Your task to perform on an android device: Open the calendar and show me this week's events? Image 0: 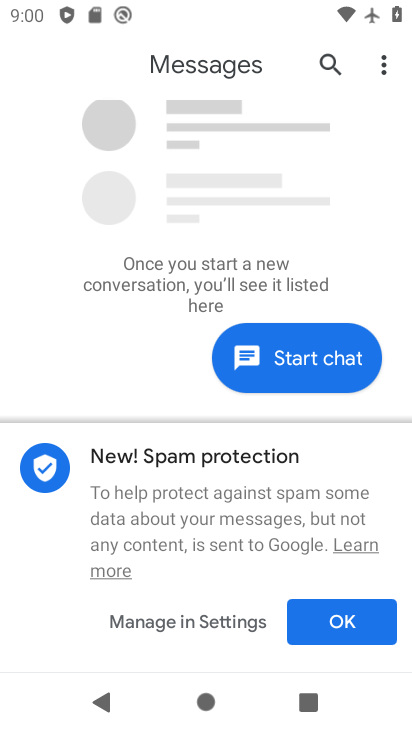
Step 0: press home button
Your task to perform on an android device: Open the calendar and show me this week's events? Image 1: 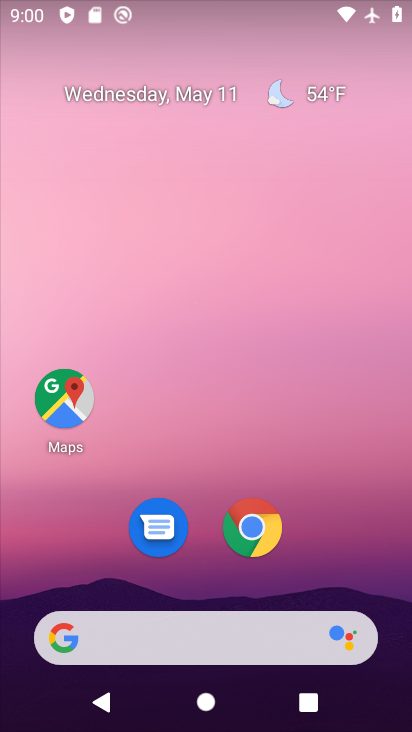
Step 1: drag from (321, 568) to (314, 191)
Your task to perform on an android device: Open the calendar and show me this week's events? Image 2: 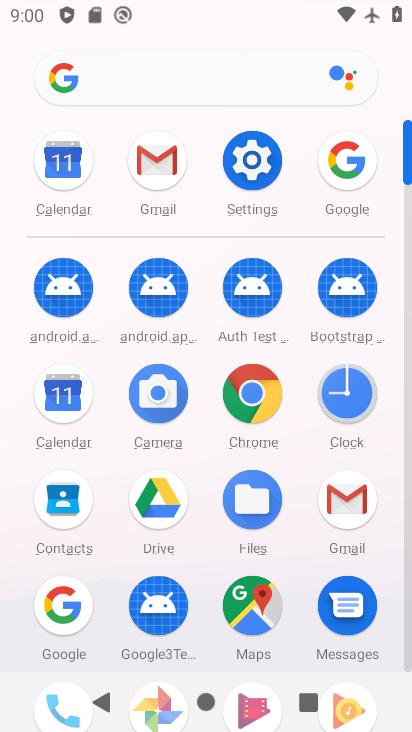
Step 2: click (72, 405)
Your task to perform on an android device: Open the calendar and show me this week's events? Image 3: 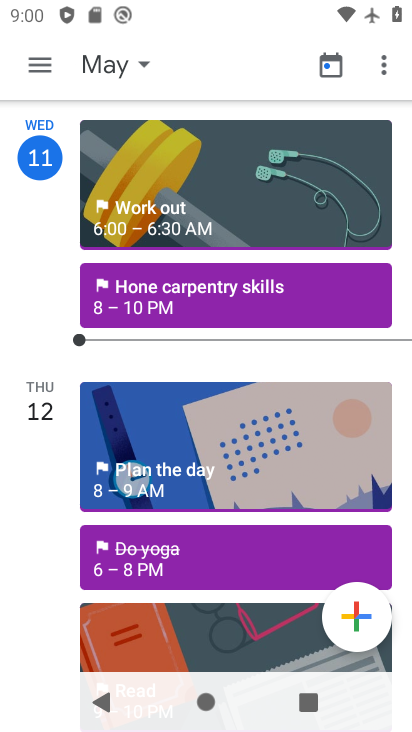
Step 3: click (119, 61)
Your task to perform on an android device: Open the calendar and show me this week's events? Image 4: 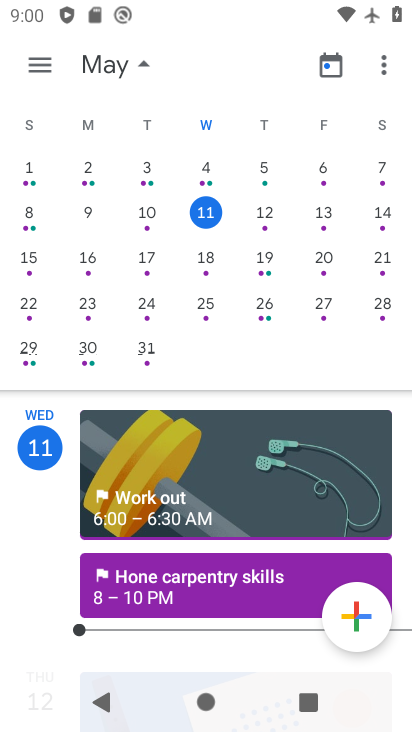
Step 4: click (271, 220)
Your task to perform on an android device: Open the calendar and show me this week's events? Image 5: 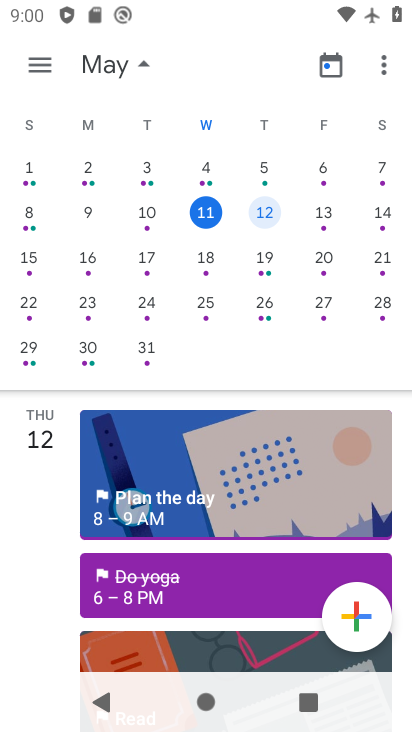
Step 5: click (323, 224)
Your task to perform on an android device: Open the calendar and show me this week's events? Image 6: 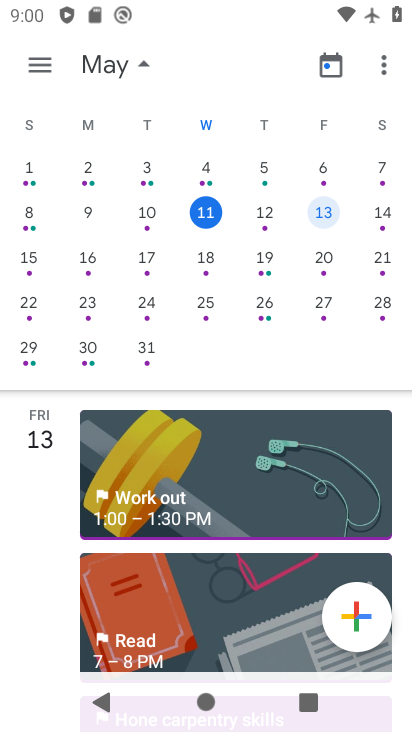
Step 6: click (380, 221)
Your task to perform on an android device: Open the calendar and show me this week's events? Image 7: 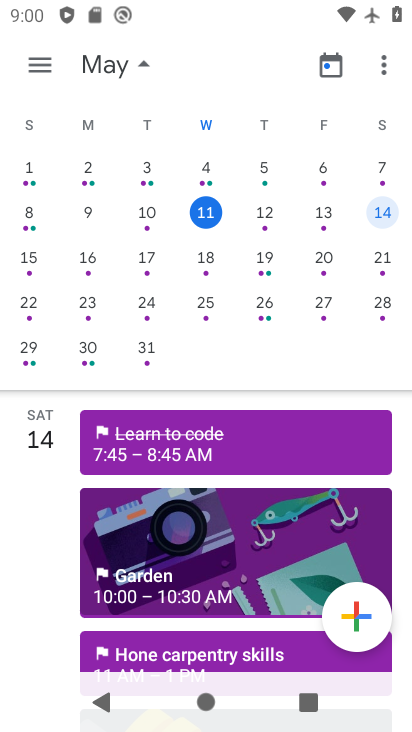
Step 7: task complete